Your task to perform on an android device: Open the phone app and click the voicemail tab. Image 0: 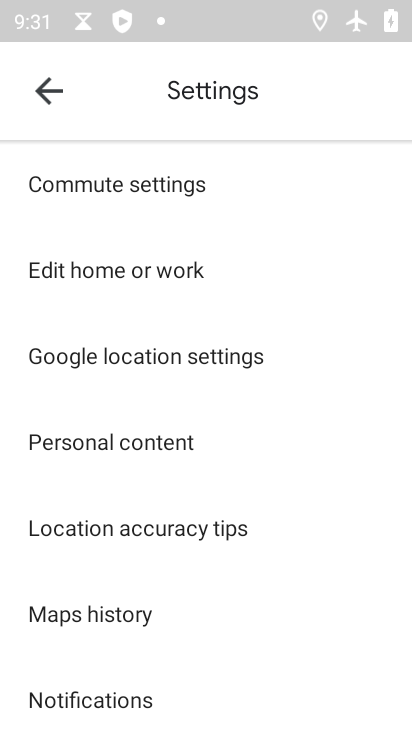
Step 0: press home button
Your task to perform on an android device: Open the phone app and click the voicemail tab. Image 1: 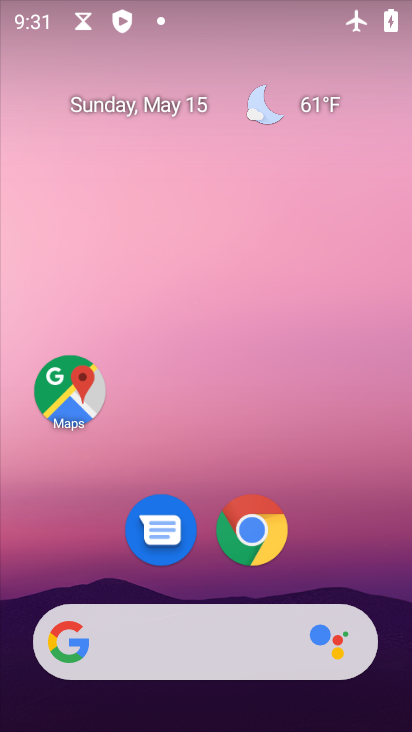
Step 1: drag from (194, 213) to (194, 137)
Your task to perform on an android device: Open the phone app and click the voicemail tab. Image 2: 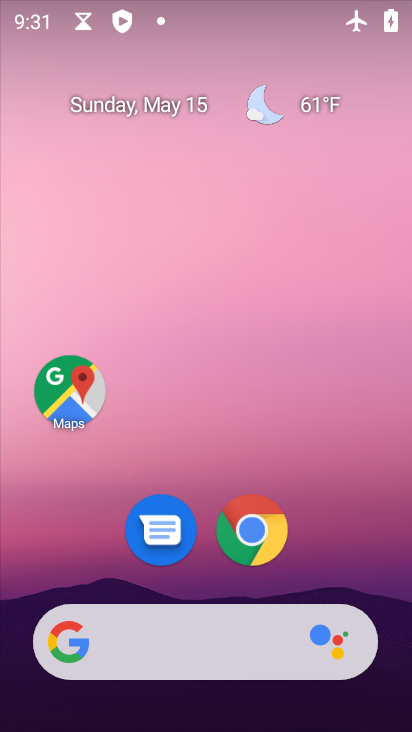
Step 2: drag from (232, 719) to (192, 238)
Your task to perform on an android device: Open the phone app and click the voicemail tab. Image 3: 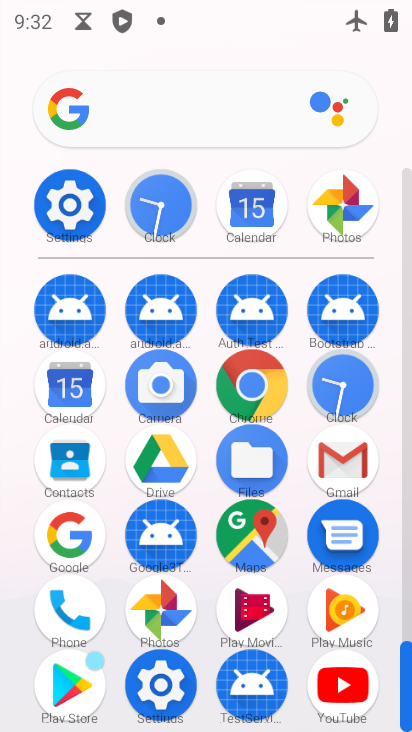
Step 3: drag from (200, 634) to (201, 336)
Your task to perform on an android device: Open the phone app and click the voicemail tab. Image 4: 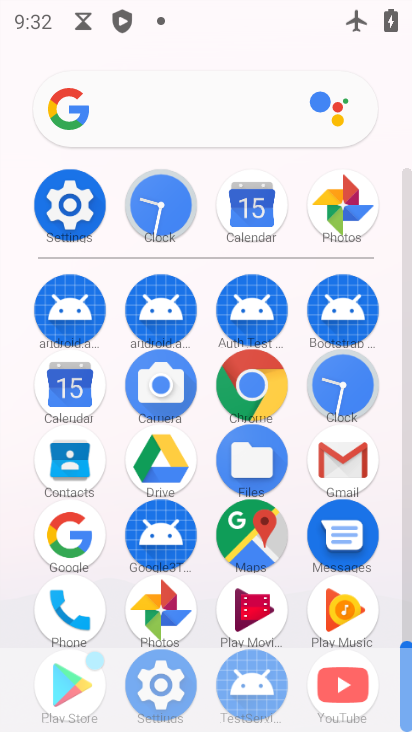
Step 4: click (69, 608)
Your task to perform on an android device: Open the phone app and click the voicemail tab. Image 5: 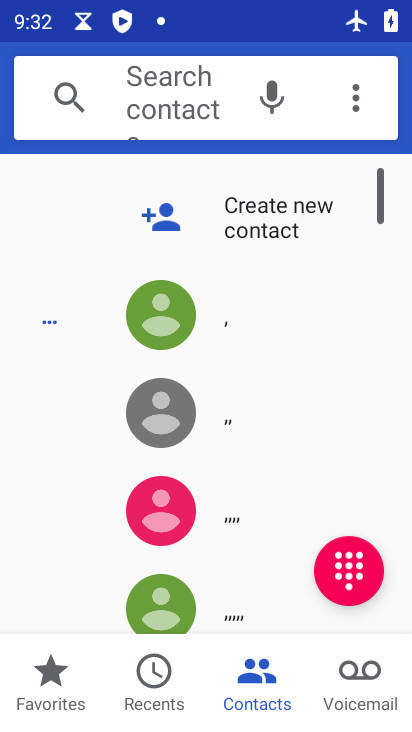
Step 5: click (358, 684)
Your task to perform on an android device: Open the phone app and click the voicemail tab. Image 6: 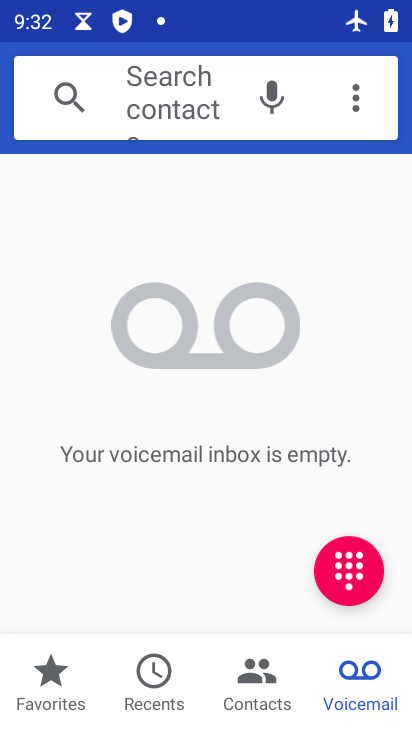
Step 6: task complete